Your task to perform on an android device: check data usage Image 0: 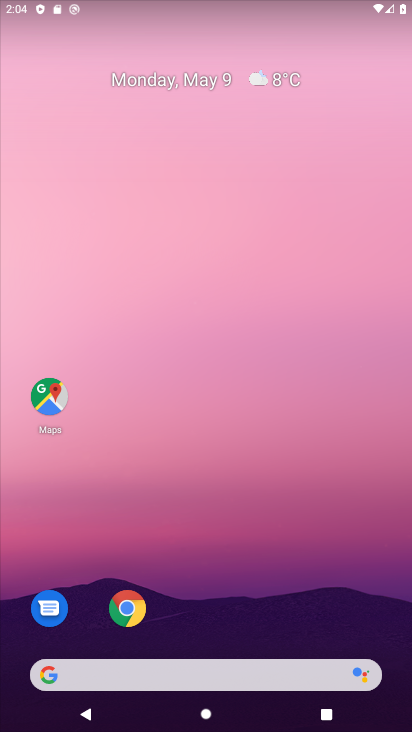
Step 0: drag from (200, 654) to (223, 297)
Your task to perform on an android device: check data usage Image 1: 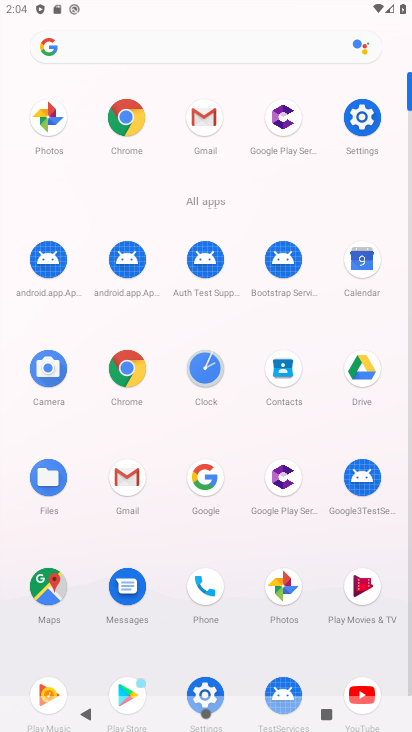
Step 1: click (373, 118)
Your task to perform on an android device: check data usage Image 2: 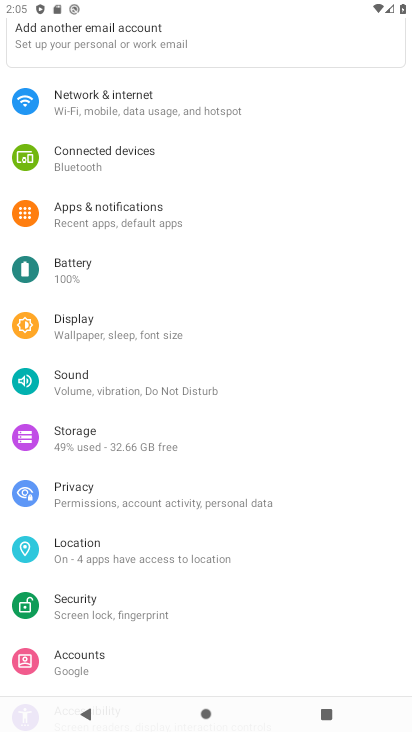
Step 2: click (216, 99)
Your task to perform on an android device: check data usage Image 3: 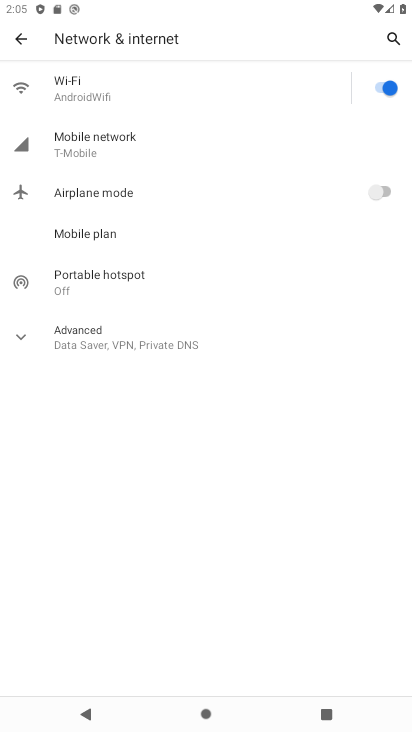
Step 3: click (186, 135)
Your task to perform on an android device: check data usage Image 4: 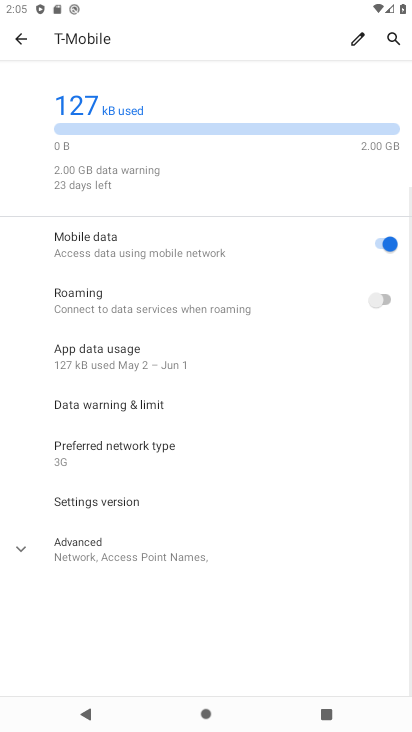
Step 4: click (169, 350)
Your task to perform on an android device: check data usage Image 5: 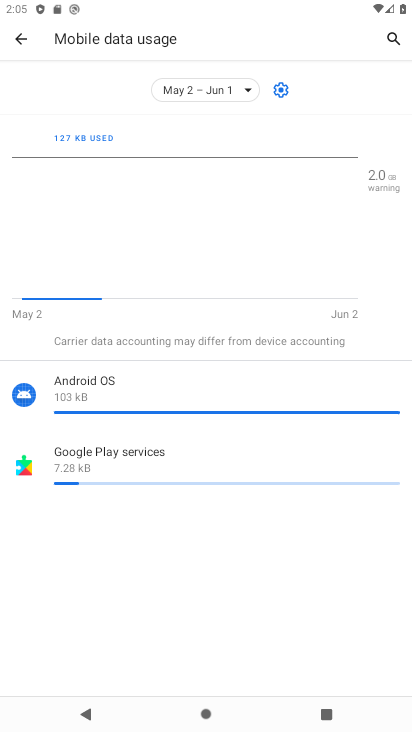
Step 5: task complete